Your task to perform on an android device: Open the Play Movies app and select the watchlist tab. Image 0: 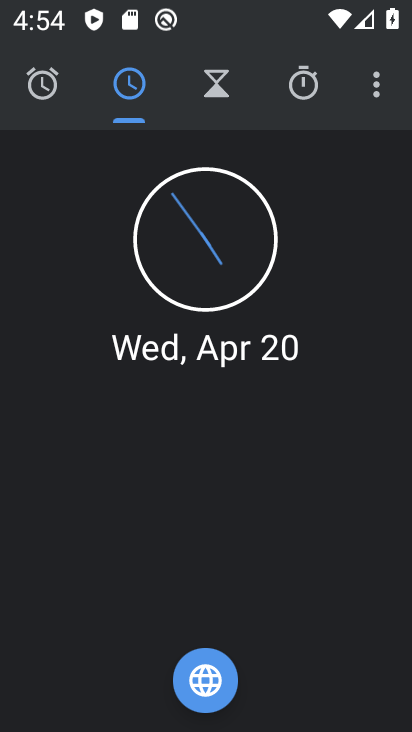
Step 0: press home button
Your task to perform on an android device: Open the Play Movies app and select the watchlist tab. Image 1: 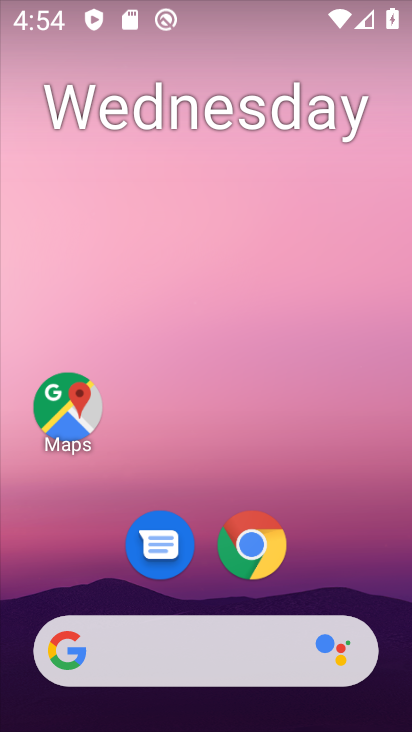
Step 1: drag from (334, 550) to (293, 149)
Your task to perform on an android device: Open the Play Movies app and select the watchlist tab. Image 2: 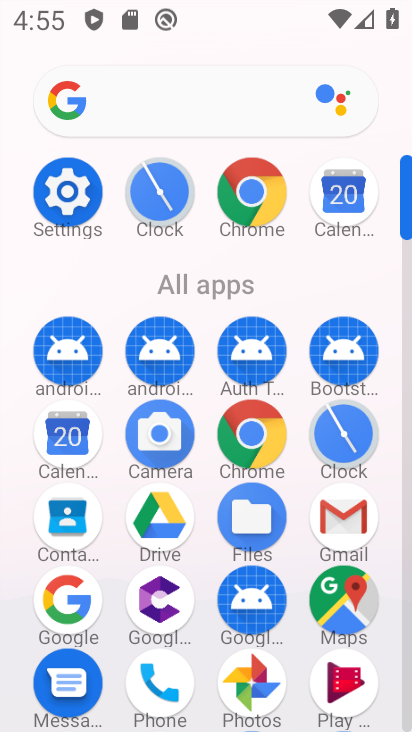
Step 2: drag from (302, 617) to (338, 348)
Your task to perform on an android device: Open the Play Movies app and select the watchlist tab. Image 3: 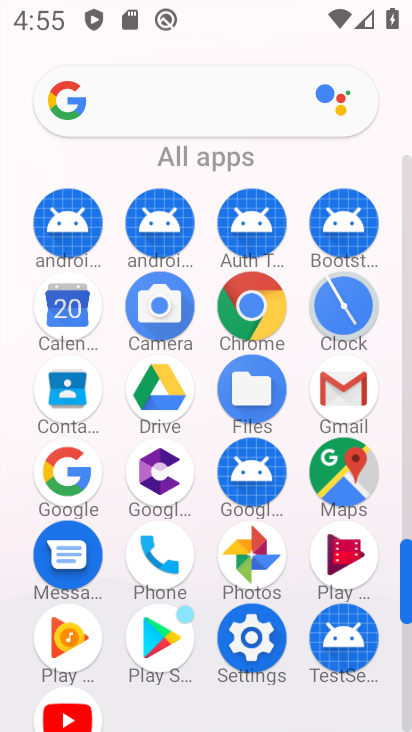
Step 3: click (336, 562)
Your task to perform on an android device: Open the Play Movies app and select the watchlist tab. Image 4: 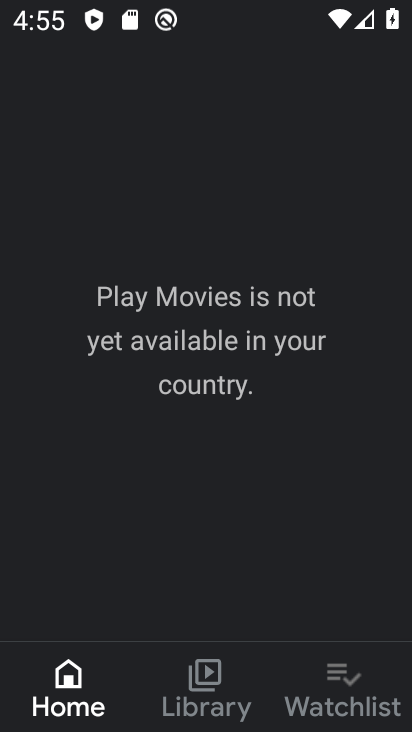
Step 4: click (349, 675)
Your task to perform on an android device: Open the Play Movies app and select the watchlist tab. Image 5: 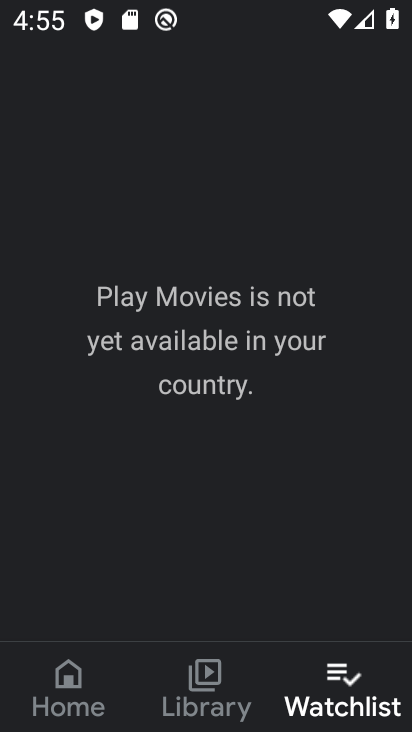
Step 5: task complete